Your task to perform on an android device: Search for "lg ultragear" on walmart, select the first entry, and add it to the cart. Image 0: 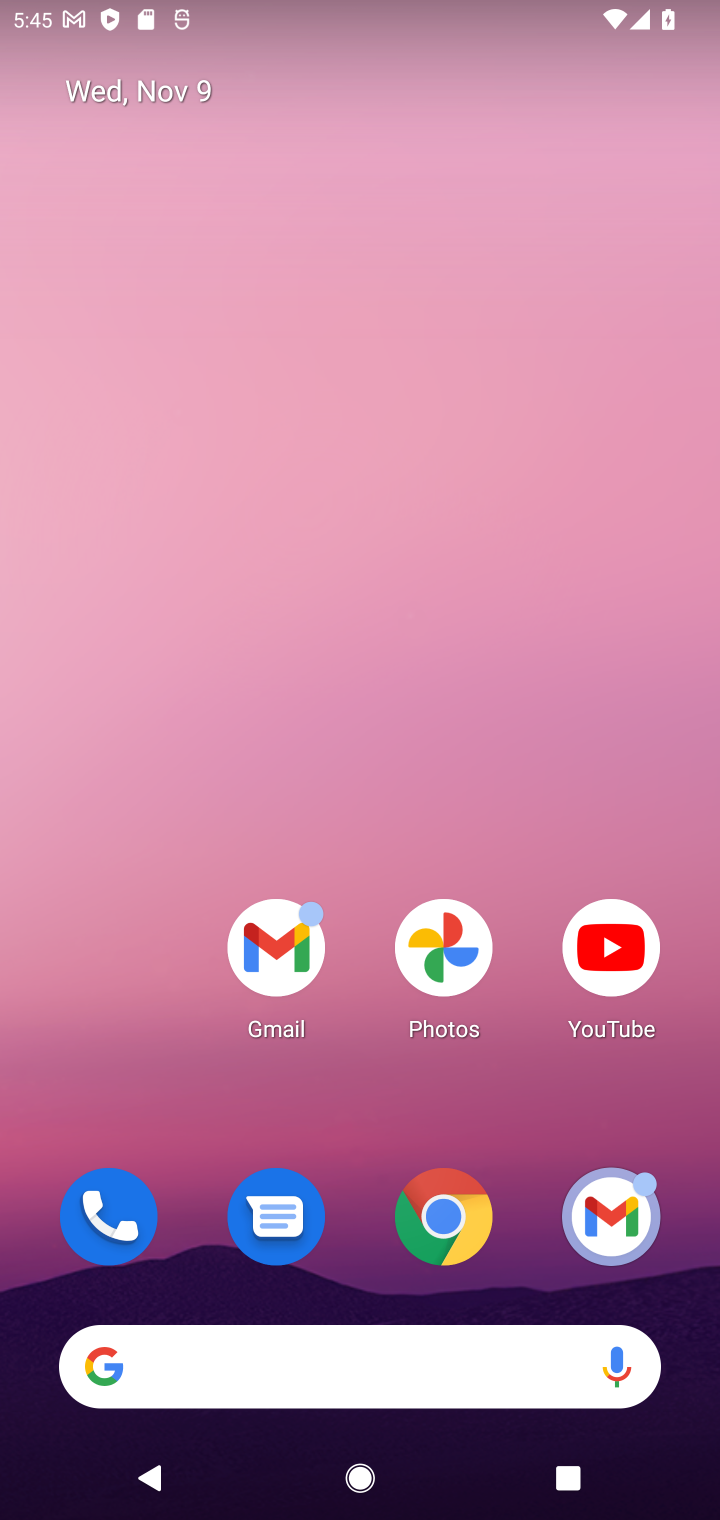
Step 0: drag from (389, 1135) to (425, 191)
Your task to perform on an android device: Search for "lg ultragear" on walmart, select the first entry, and add it to the cart. Image 1: 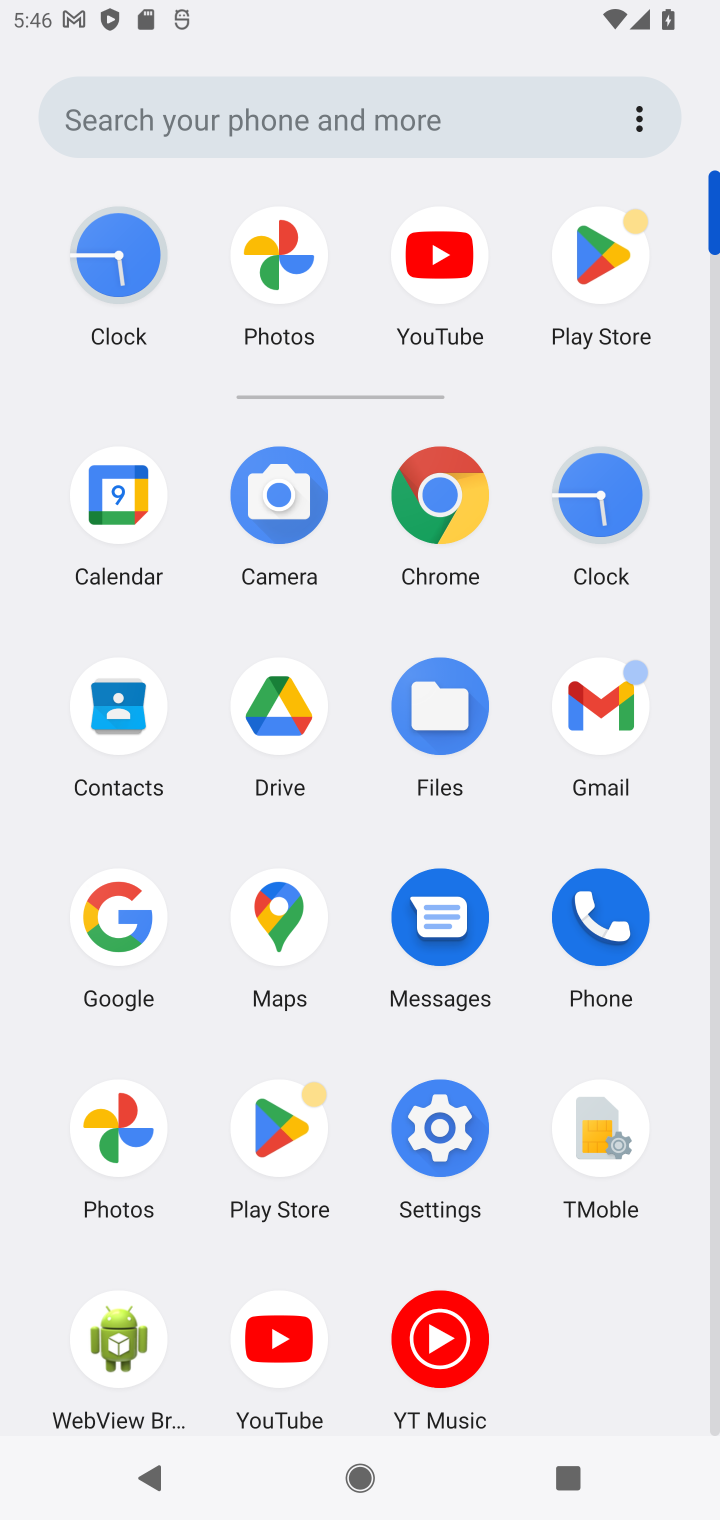
Step 1: click (435, 492)
Your task to perform on an android device: Search for "lg ultragear" on walmart, select the first entry, and add it to the cart. Image 2: 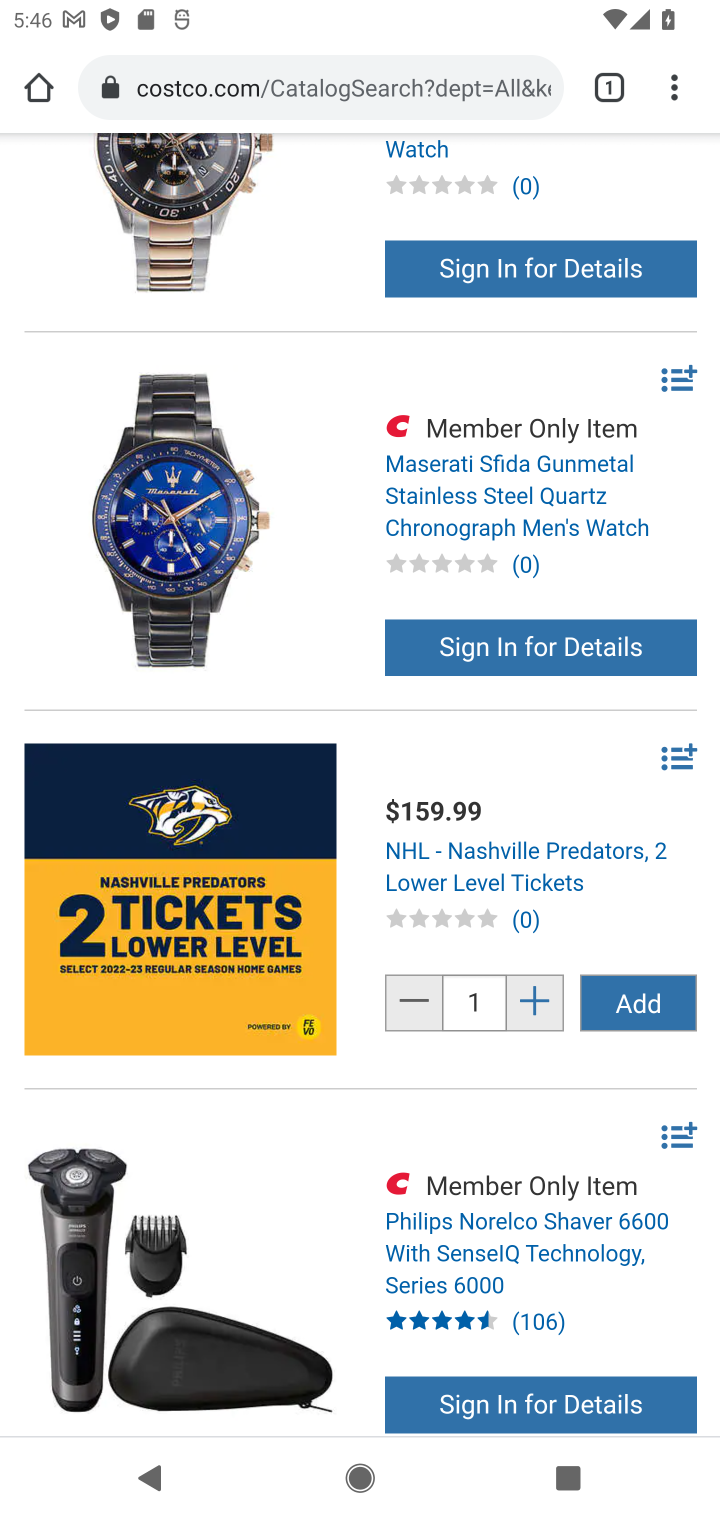
Step 2: click (425, 91)
Your task to perform on an android device: Search for "lg ultragear" on walmart, select the first entry, and add it to the cart. Image 3: 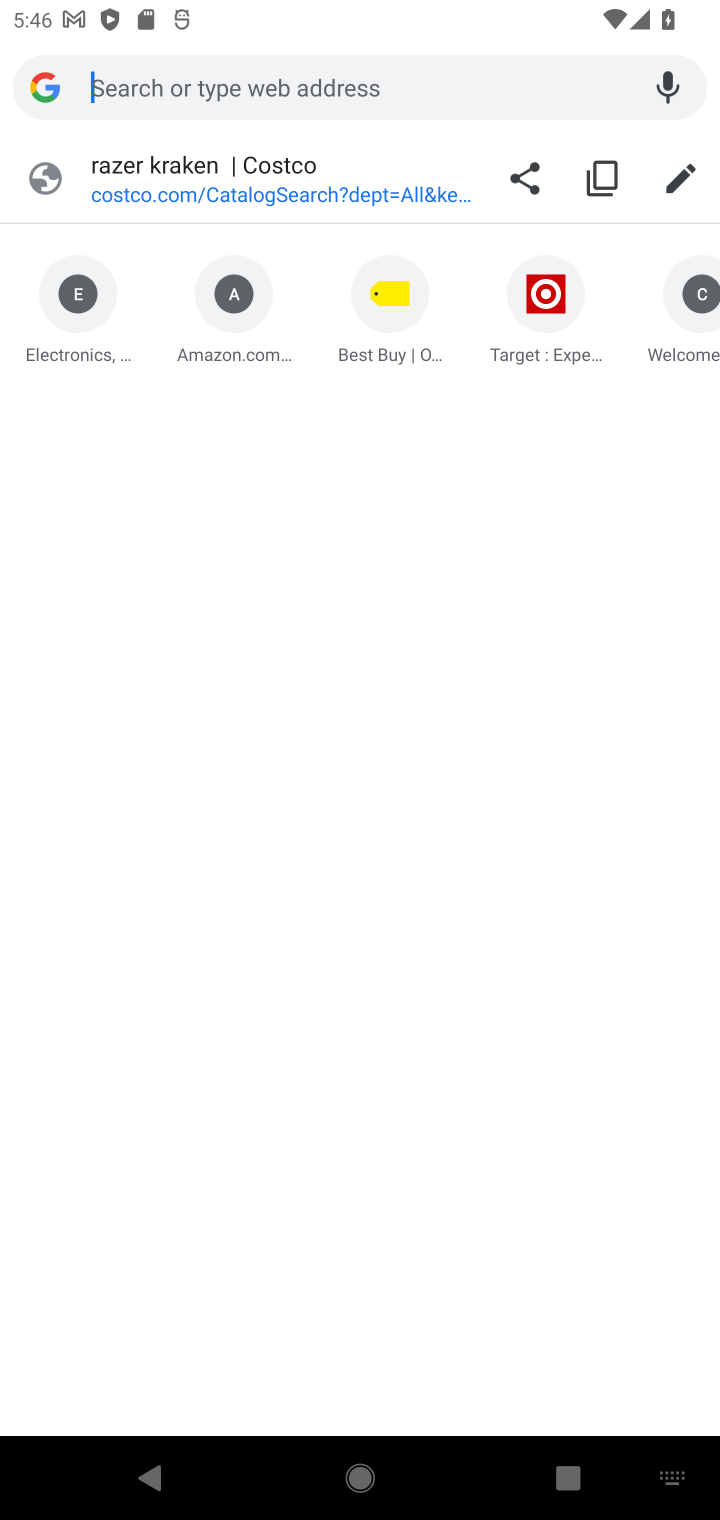
Step 3: type "walmart.com"
Your task to perform on an android device: Search for "lg ultragear" on walmart, select the first entry, and add it to the cart. Image 4: 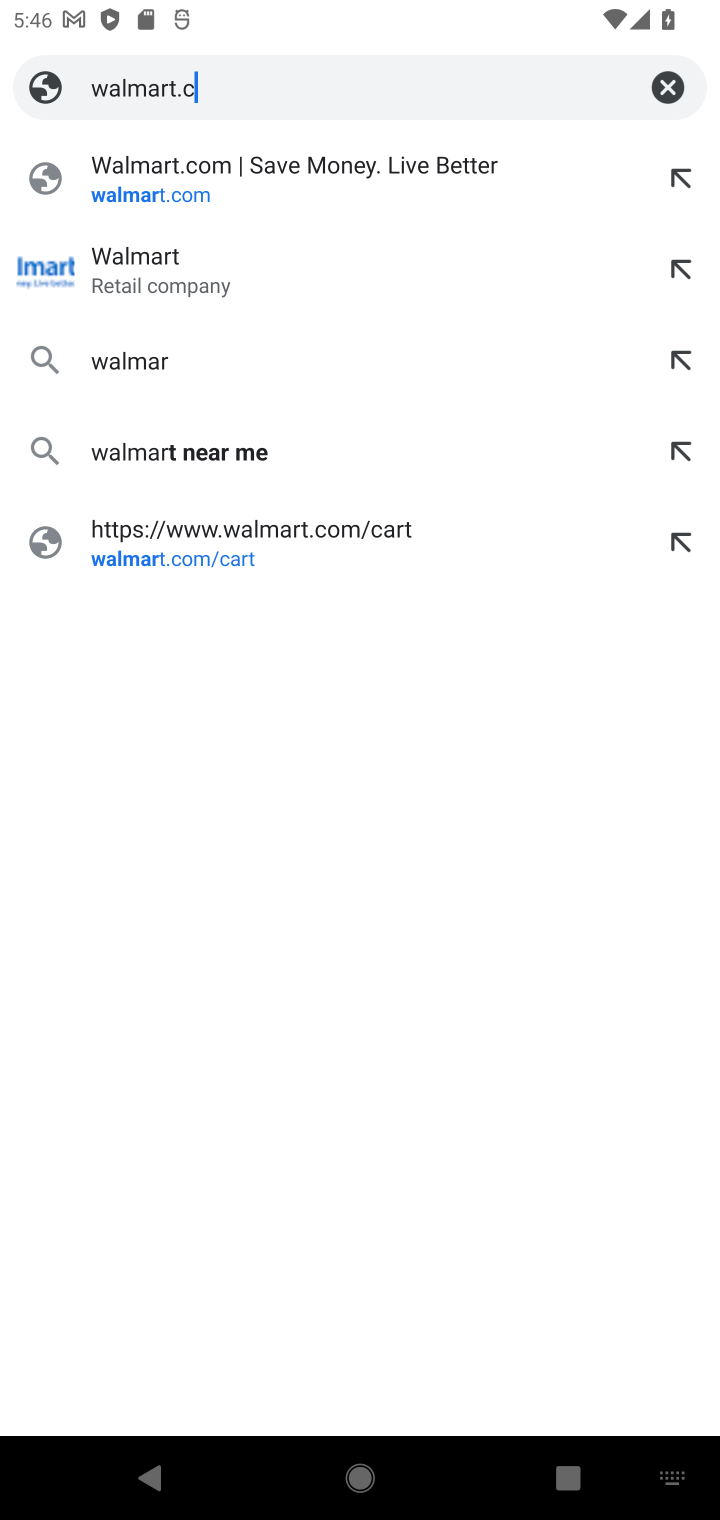
Step 4: press enter
Your task to perform on an android device: Search for "lg ultragear" on walmart, select the first entry, and add it to the cart. Image 5: 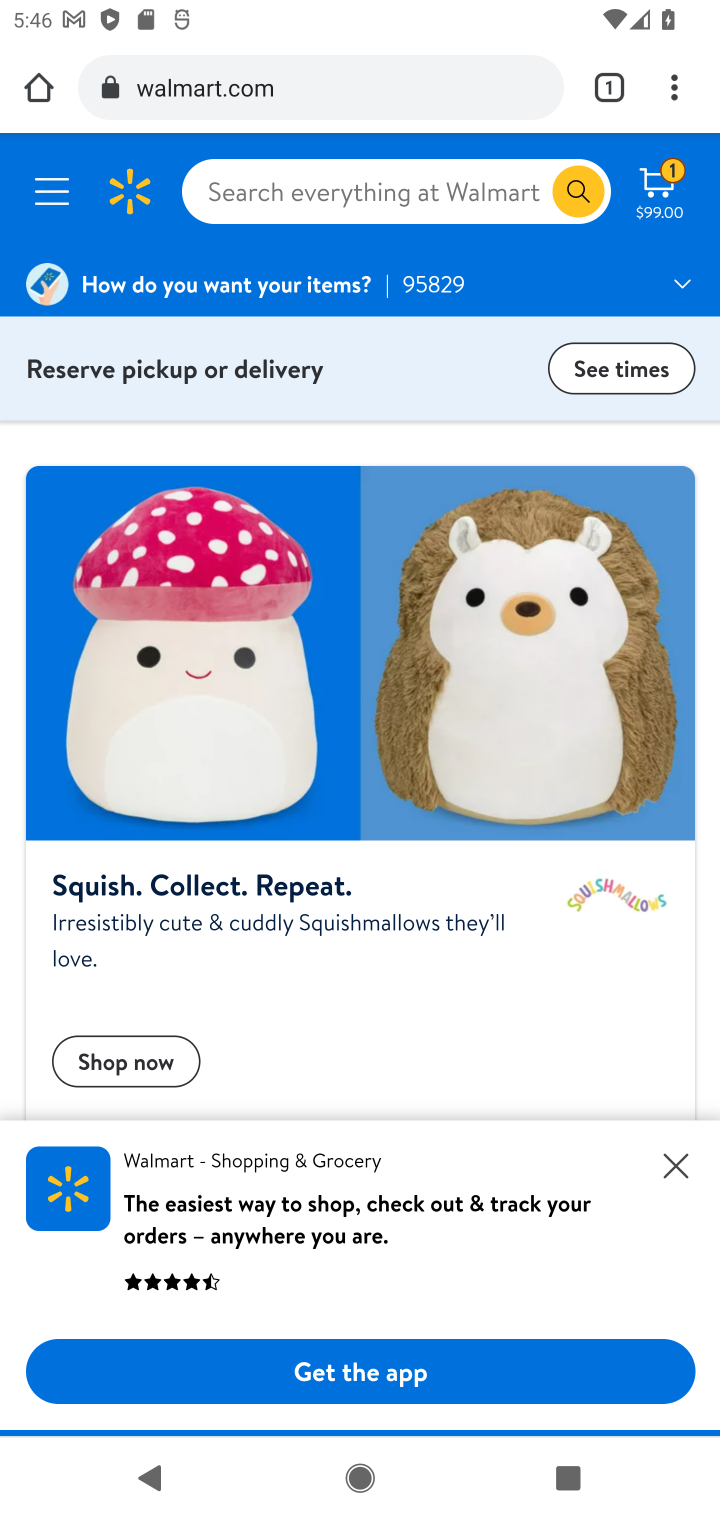
Step 5: click (317, 188)
Your task to perform on an android device: Search for "lg ultragear" on walmart, select the first entry, and add it to the cart. Image 6: 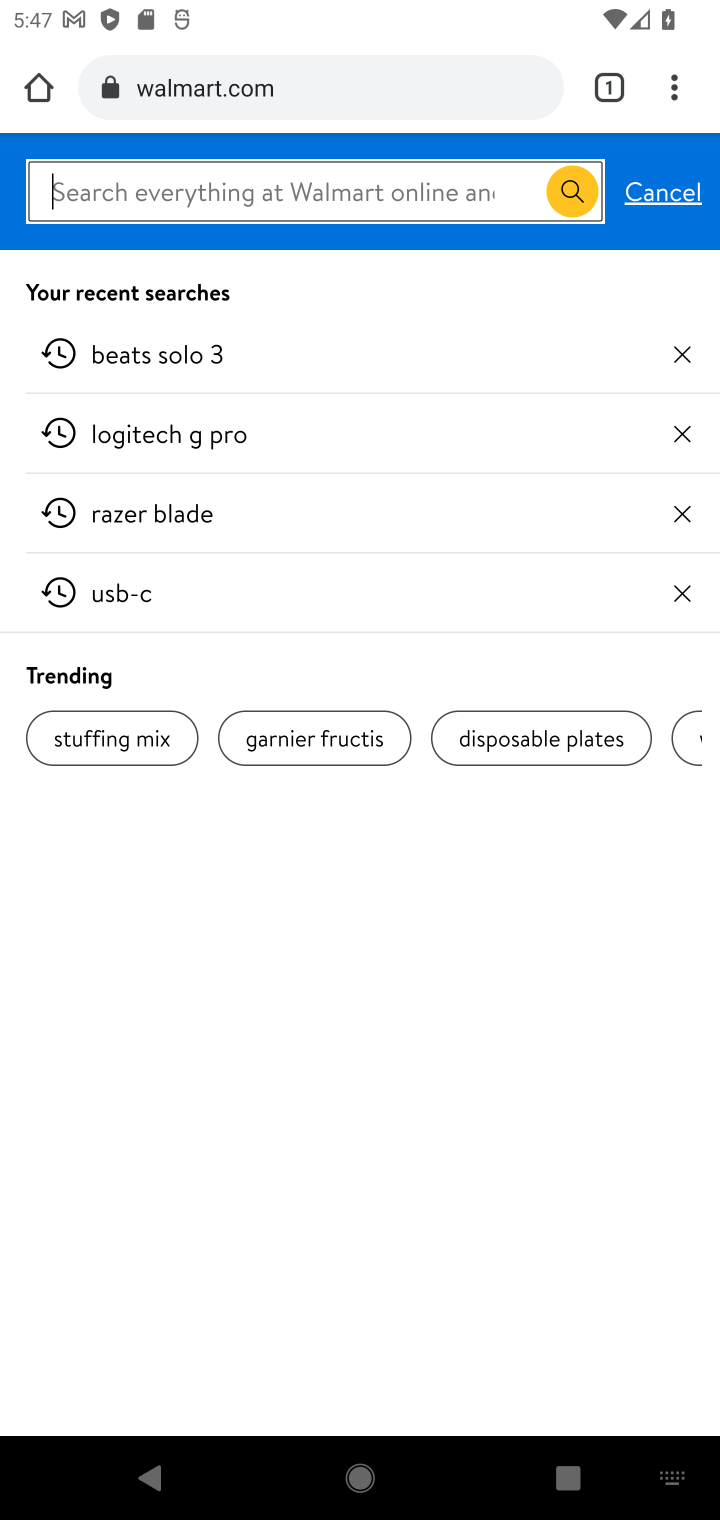
Step 6: type "lg ultragear"
Your task to perform on an android device: Search for "lg ultragear" on walmart, select the first entry, and add it to the cart. Image 7: 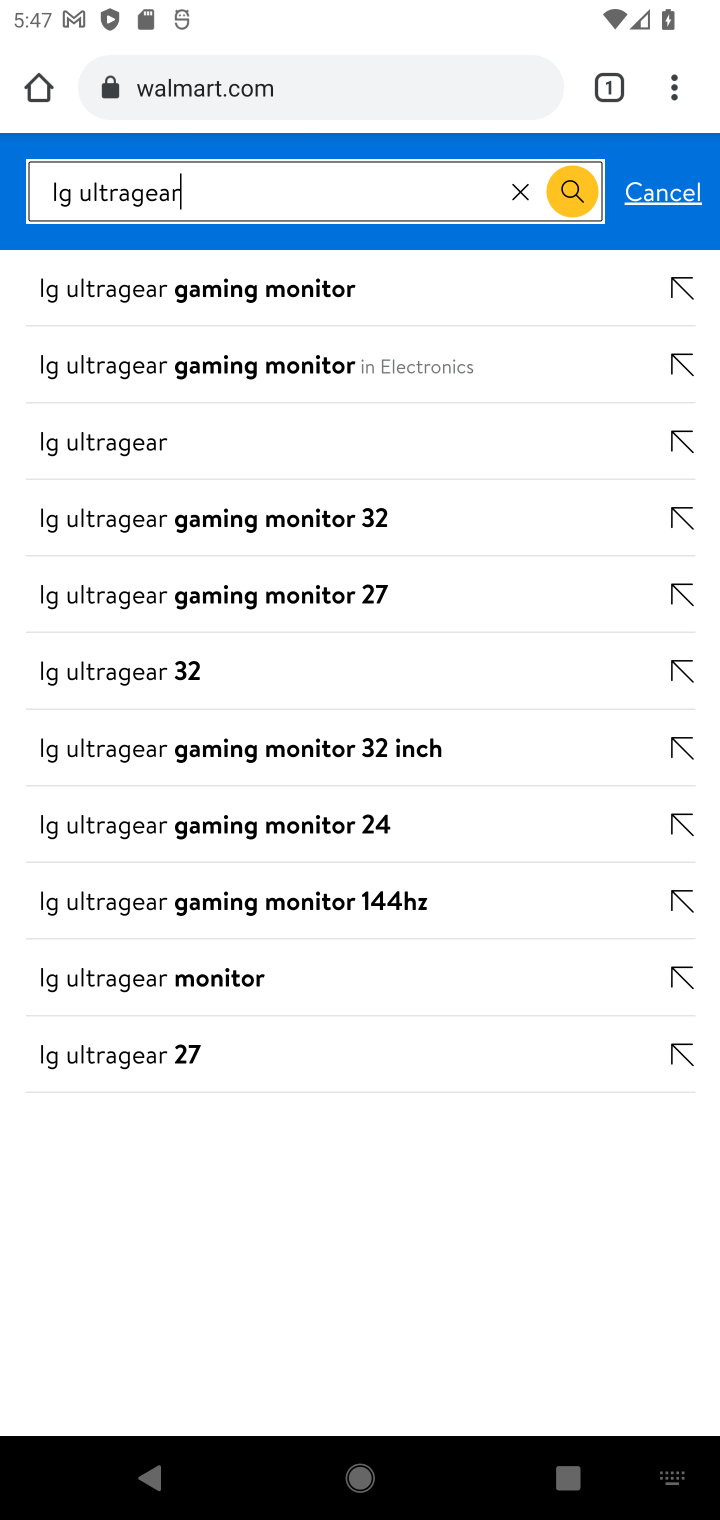
Step 7: press enter
Your task to perform on an android device: Search for "lg ultragear" on walmart, select the first entry, and add it to the cart. Image 8: 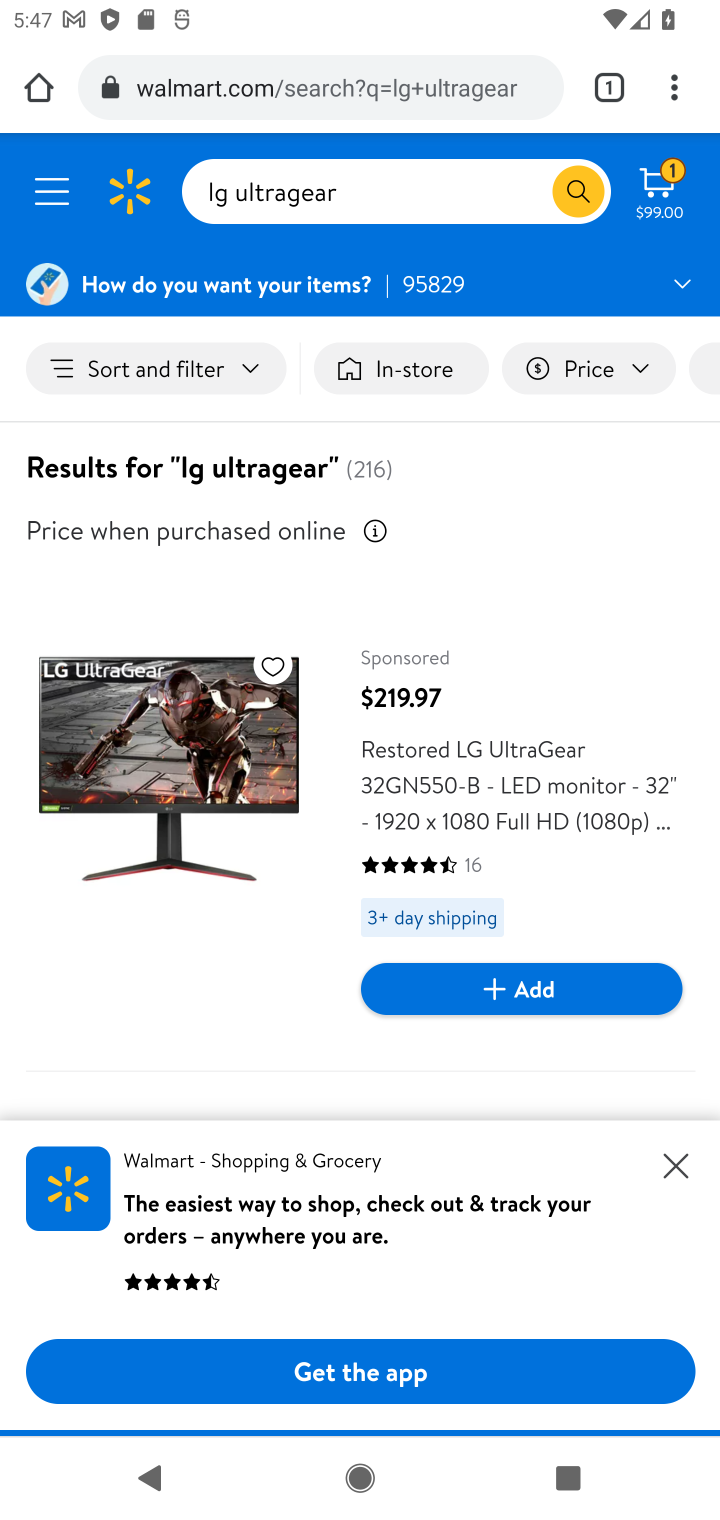
Step 8: drag from (338, 1069) to (300, 579)
Your task to perform on an android device: Search for "lg ultragear" on walmart, select the first entry, and add it to the cart. Image 9: 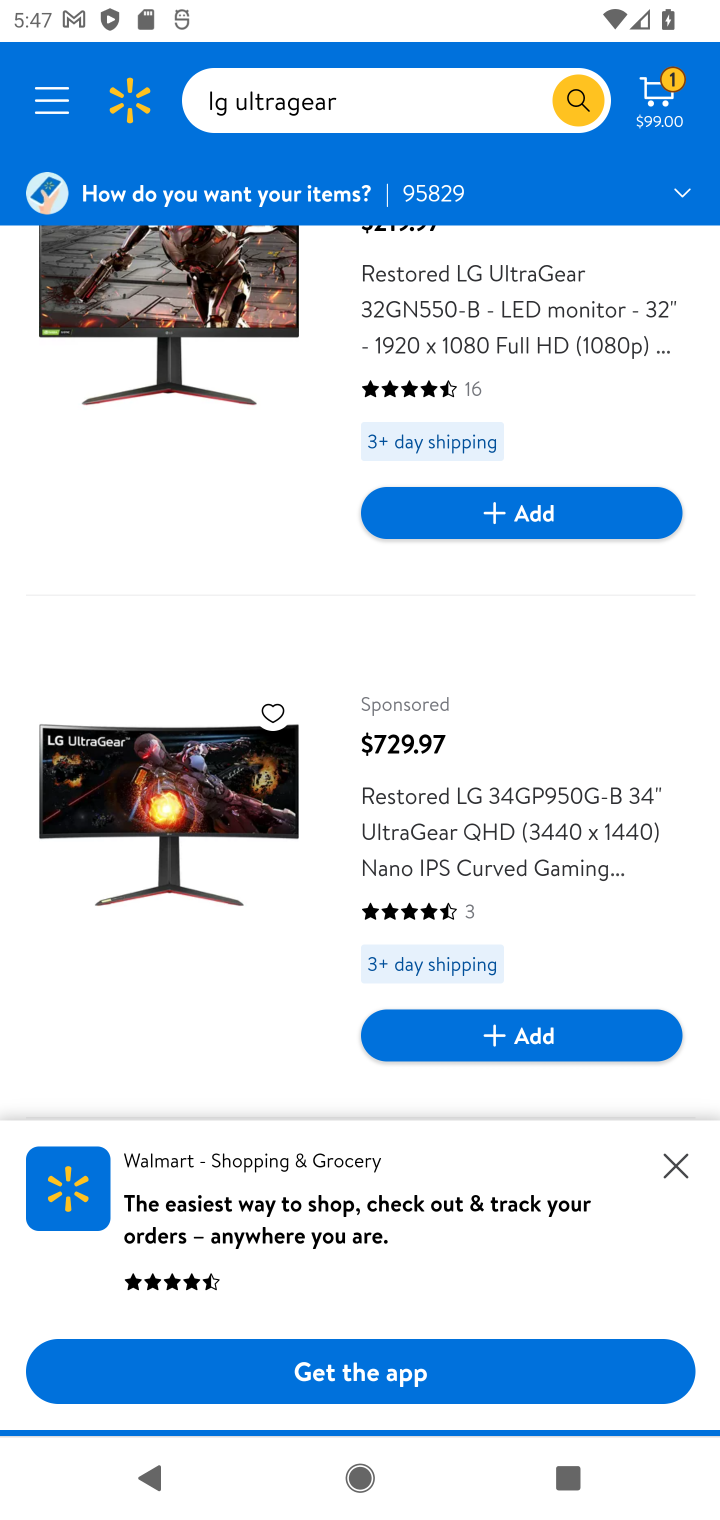
Step 9: drag from (327, 1002) to (335, 435)
Your task to perform on an android device: Search for "lg ultragear" on walmart, select the first entry, and add it to the cart. Image 10: 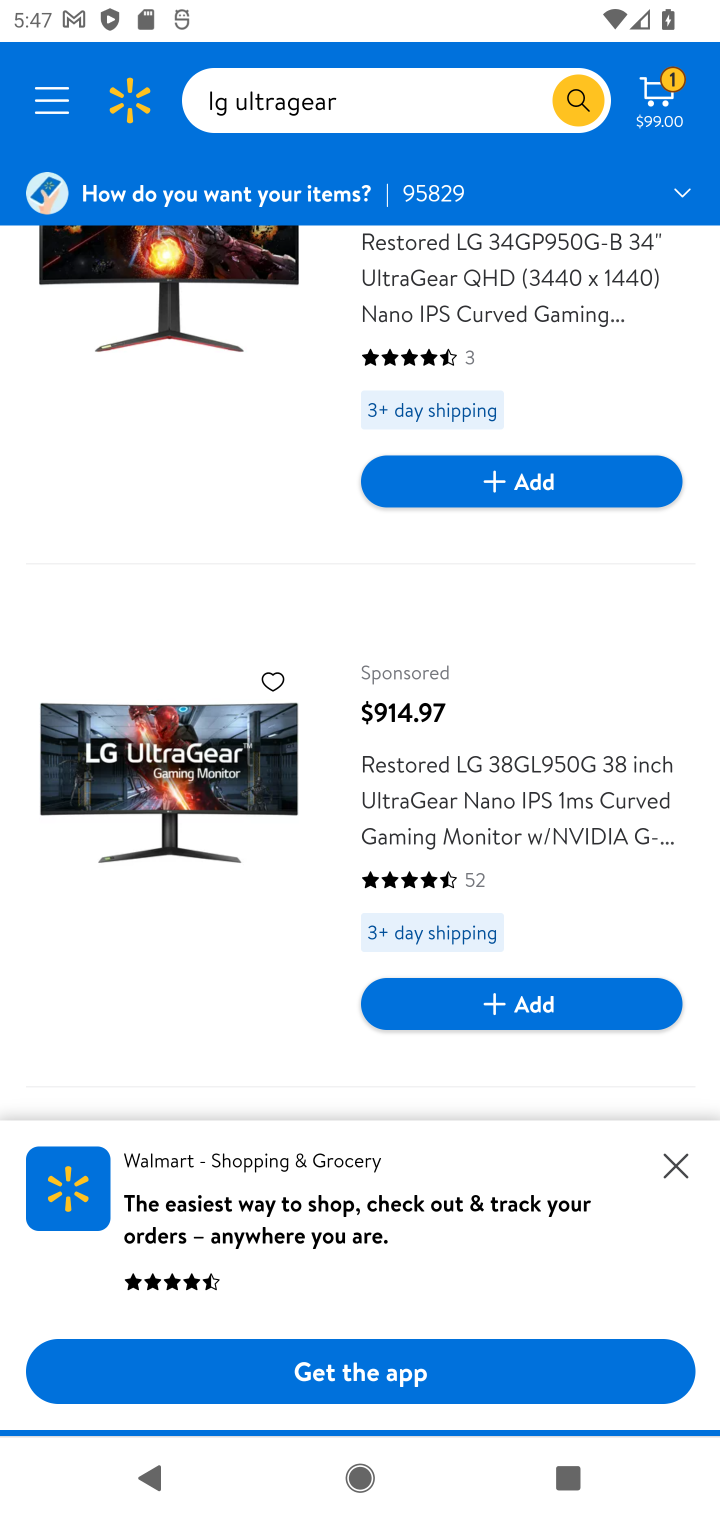
Step 10: drag from (238, 955) to (271, 378)
Your task to perform on an android device: Search for "lg ultragear" on walmart, select the first entry, and add it to the cart. Image 11: 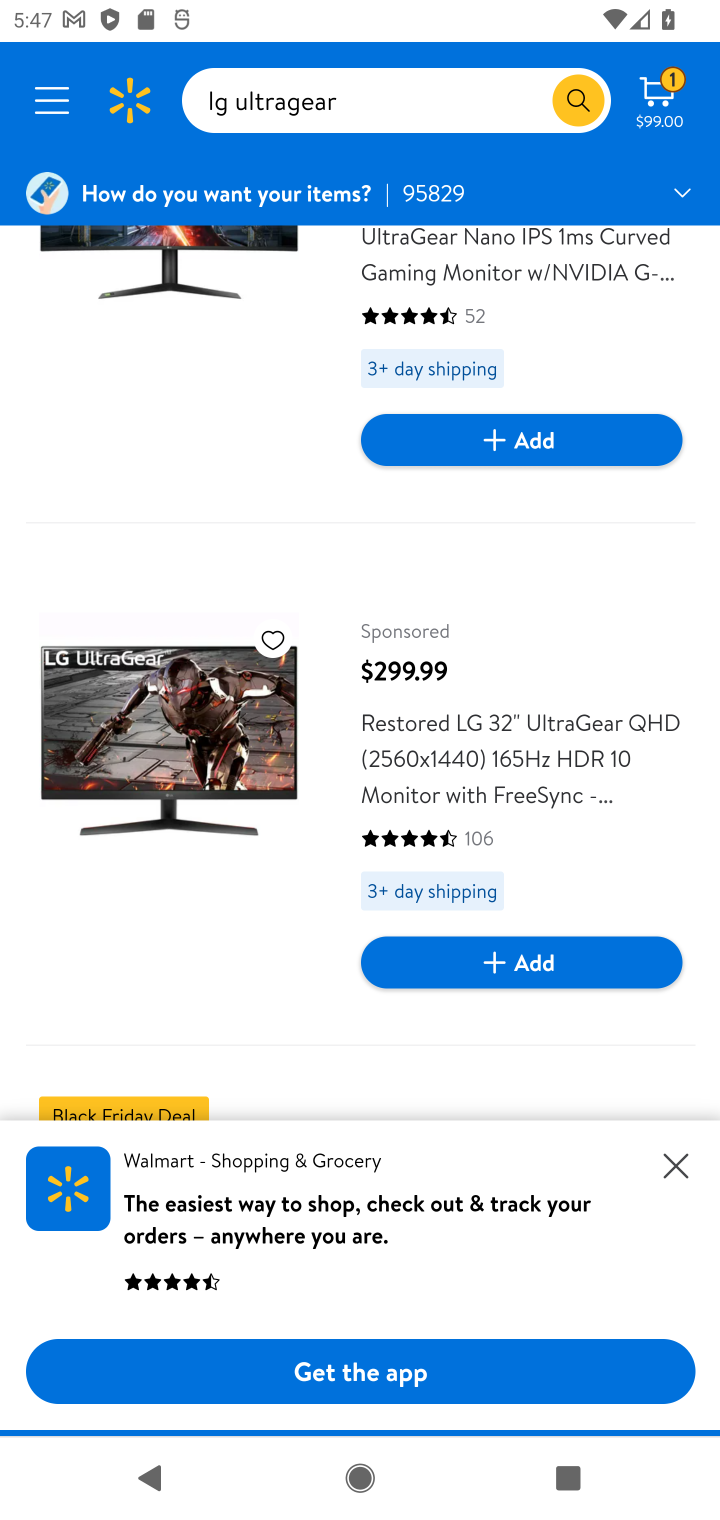
Step 11: drag from (311, 1012) to (366, 314)
Your task to perform on an android device: Search for "lg ultragear" on walmart, select the first entry, and add it to the cart. Image 12: 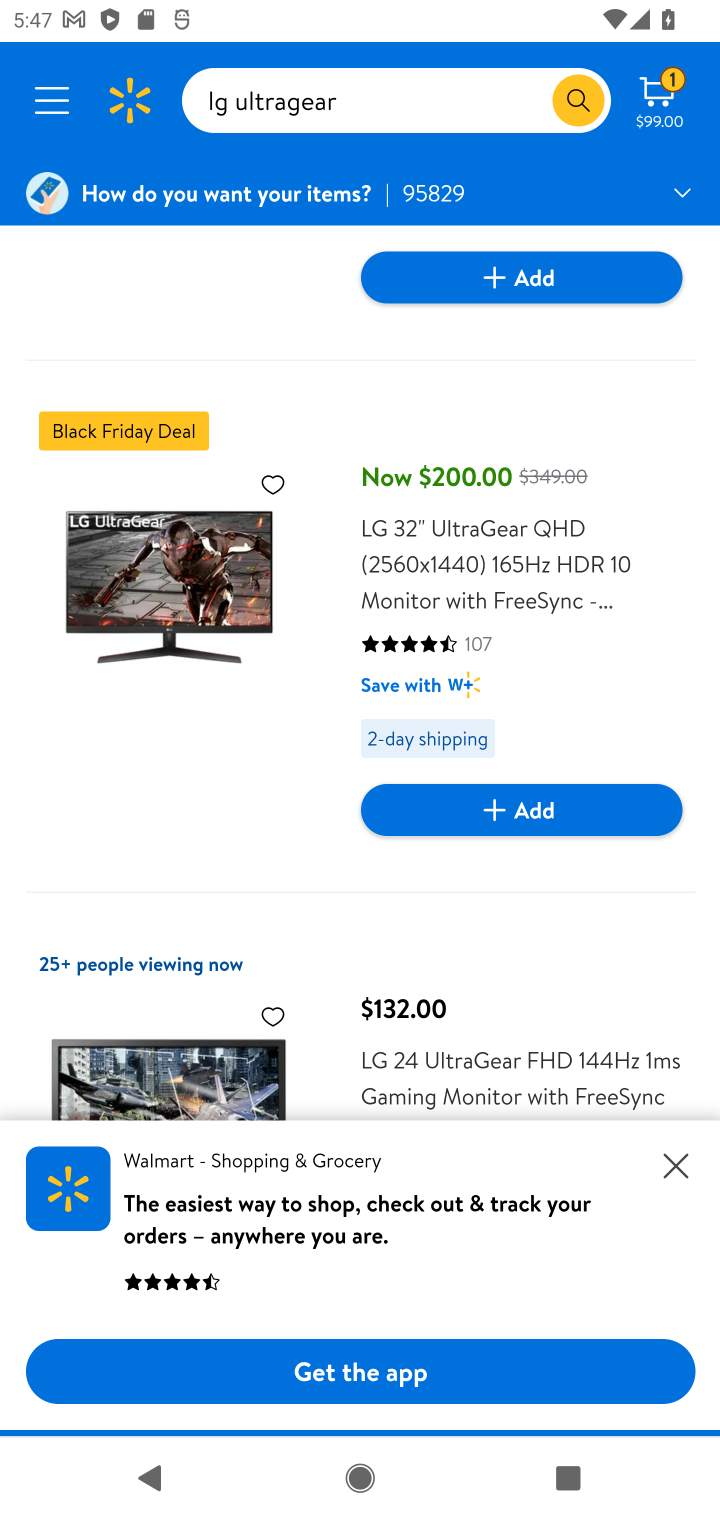
Step 12: drag from (309, 348) to (307, 565)
Your task to perform on an android device: Search for "lg ultragear" on walmart, select the first entry, and add it to the cart. Image 13: 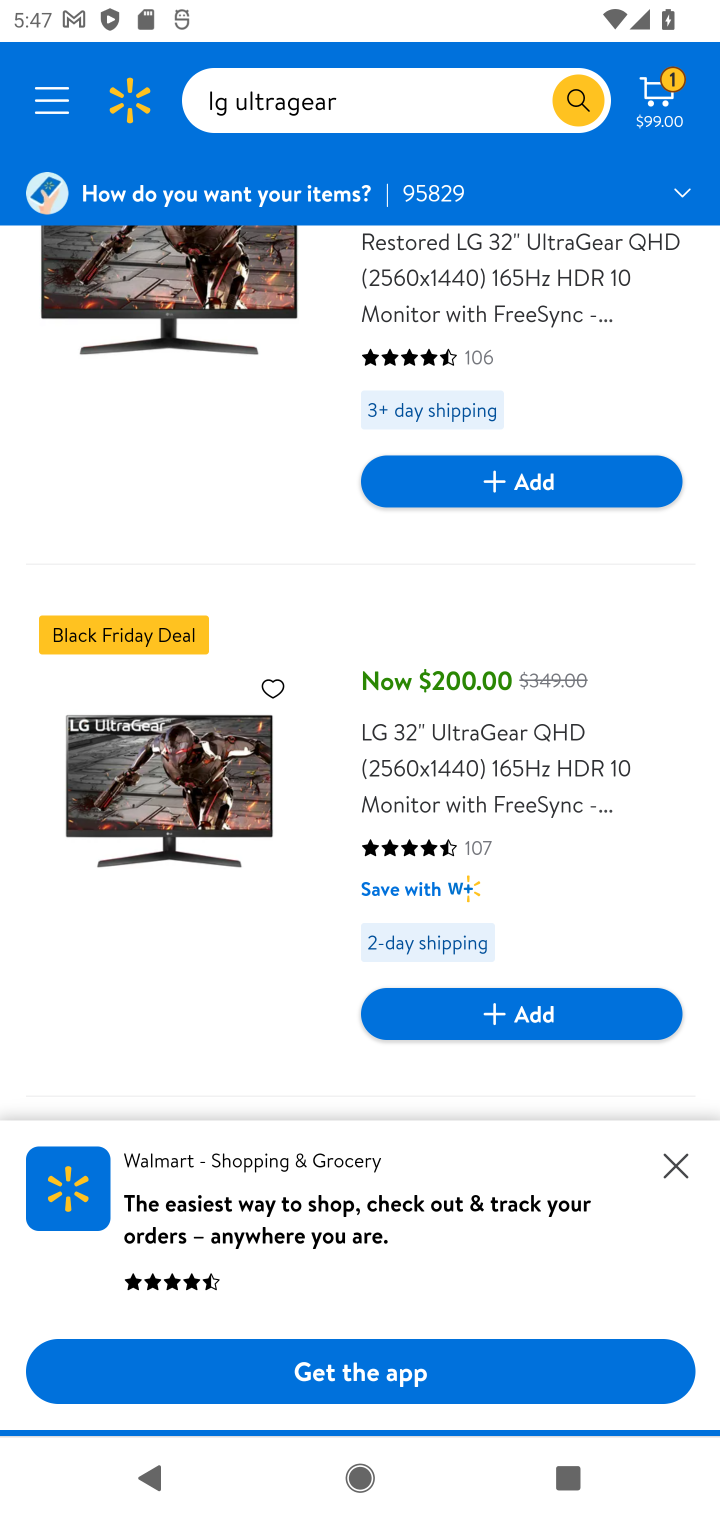
Step 13: click (542, 1012)
Your task to perform on an android device: Search for "lg ultragear" on walmart, select the first entry, and add it to the cart. Image 14: 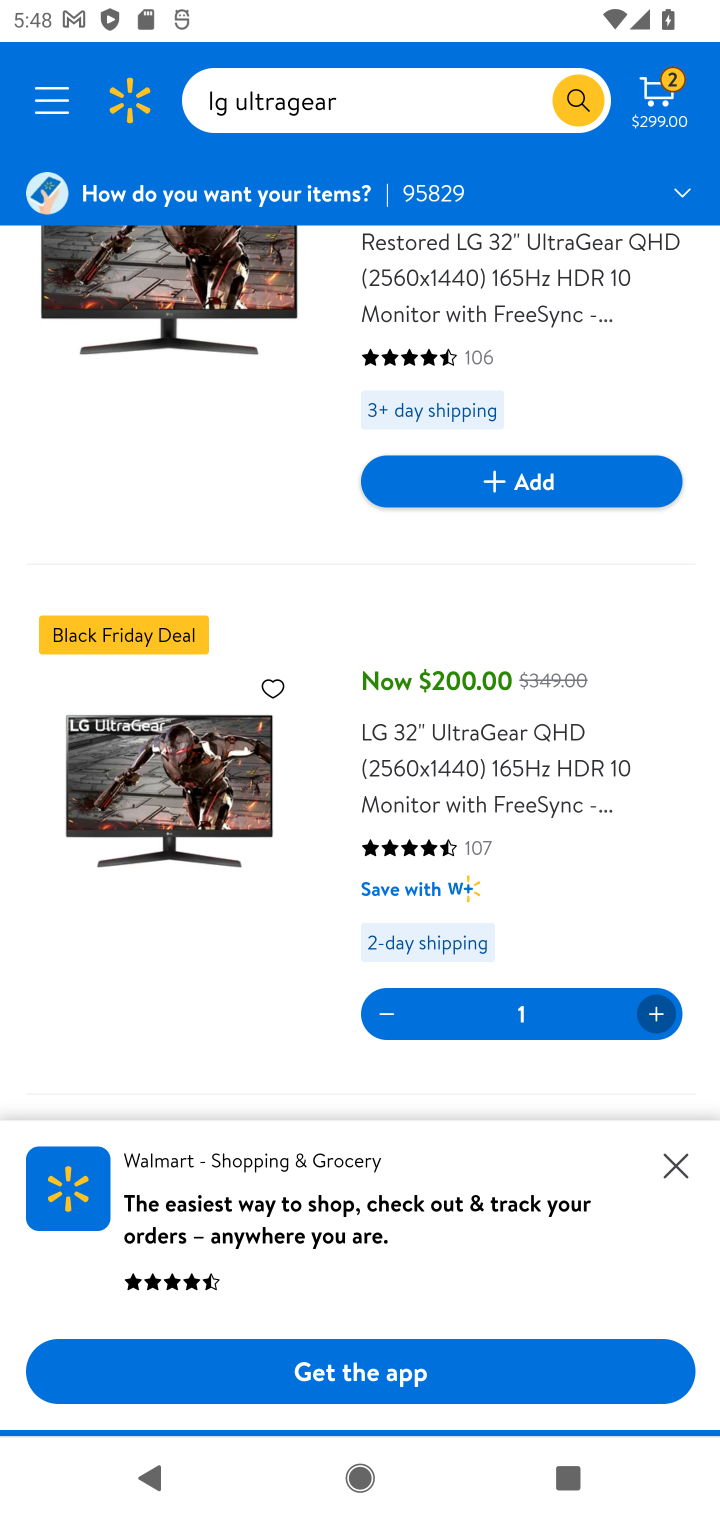
Step 14: click (661, 92)
Your task to perform on an android device: Search for "lg ultragear" on walmart, select the first entry, and add it to the cart. Image 15: 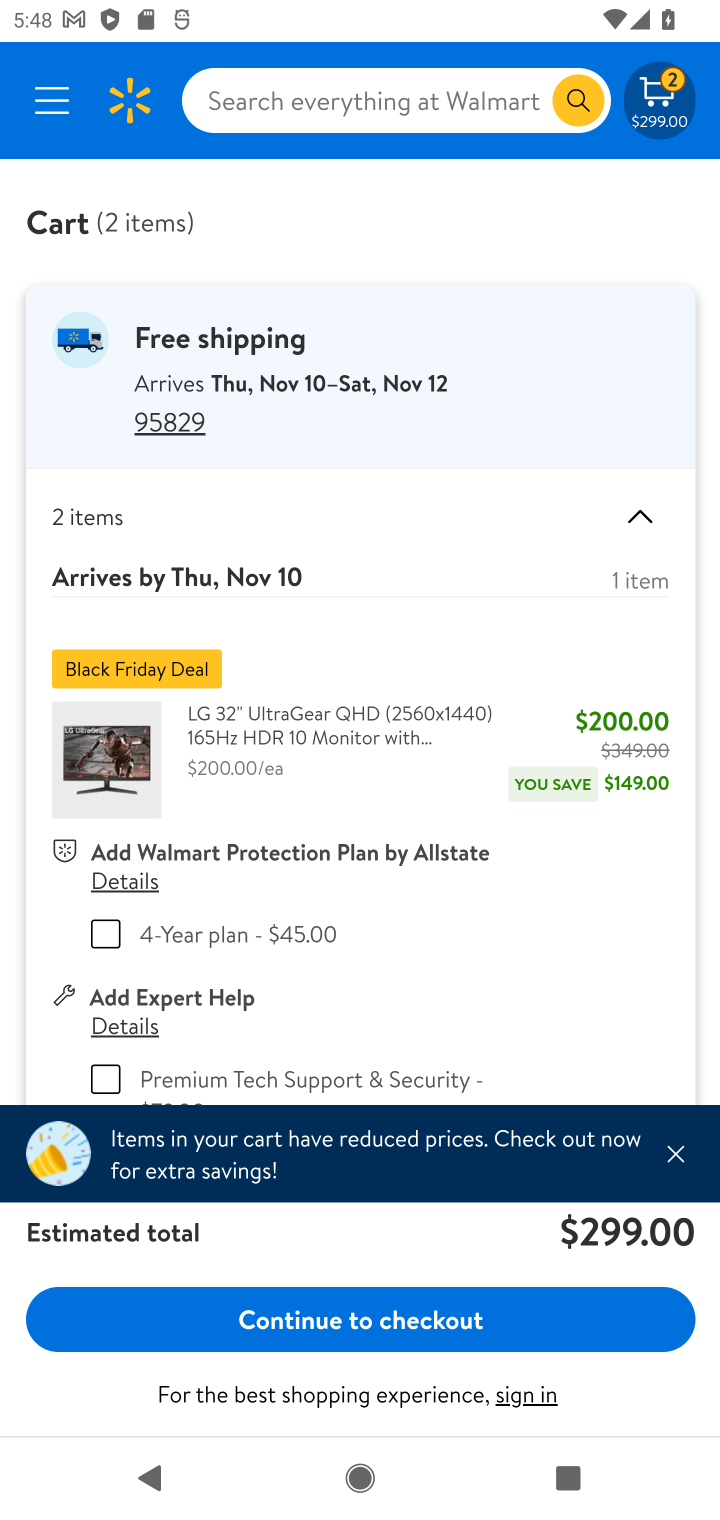
Step 15: task complete